Your task to perform on an android device: open app "Firefox Browser" (install if not already installed) Image 0: 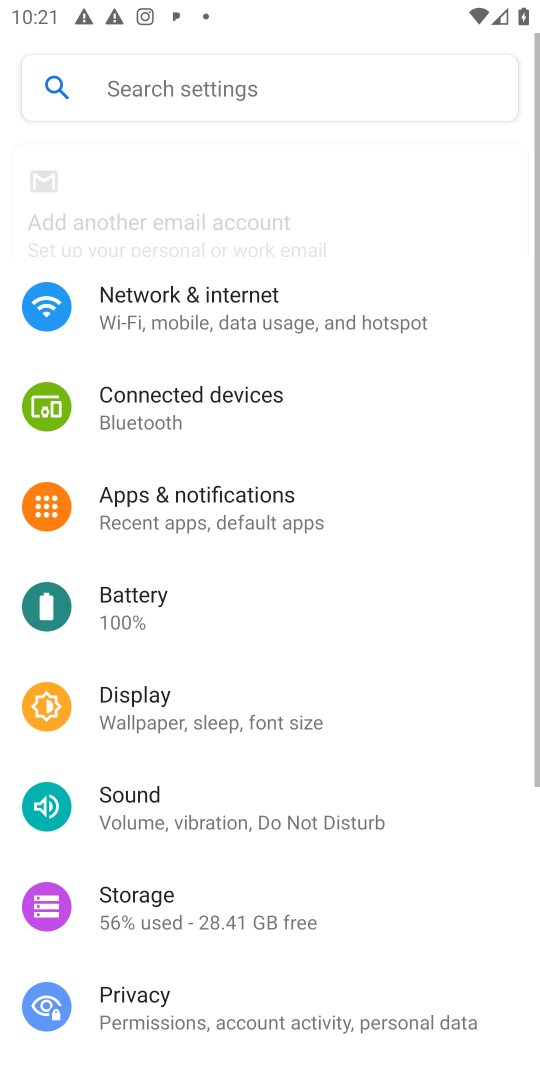
Step 0: press home button
Your task to perform on an android device: open app "Firefox Browser" (install if not already installed) Image 1: 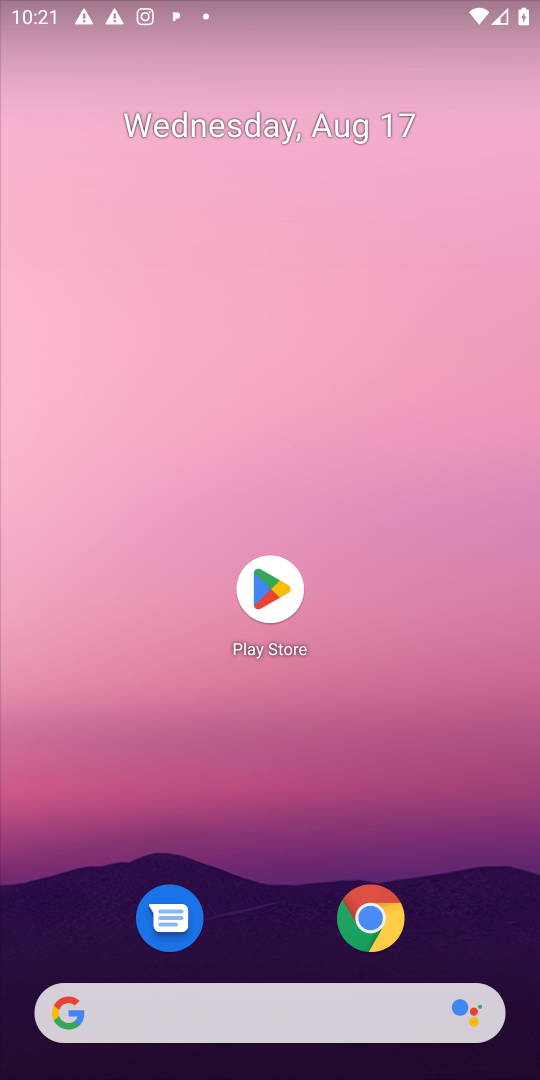
Step 1: click (256, 589)
Your task to perform on an android device: open app "Firefox Browser" (install if not already installed) Image 2: 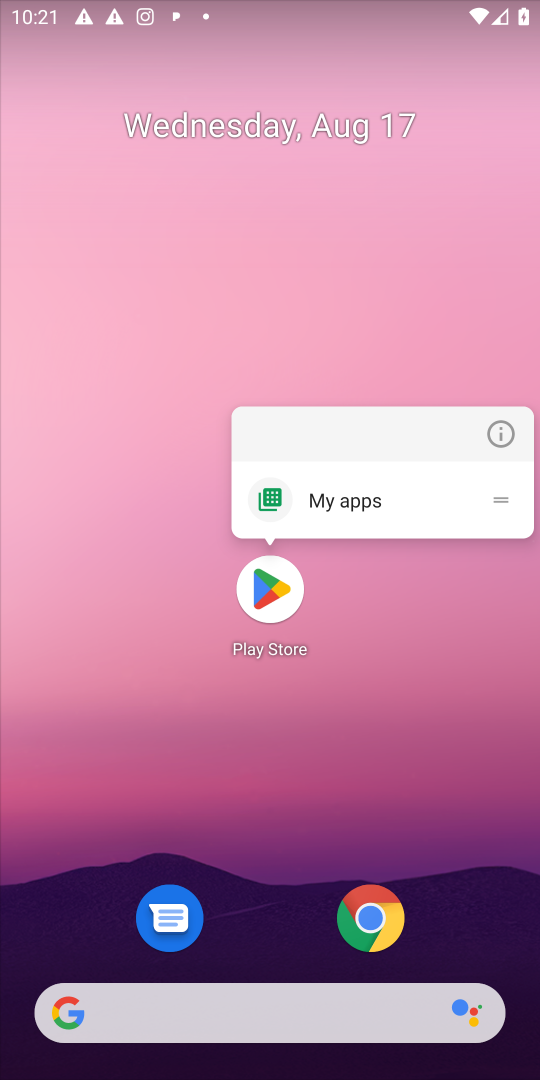
Step 2: click (256, 590)
Your task to perform on an android device: open app "Firefox Browser" (install if not already installed) Image 3: 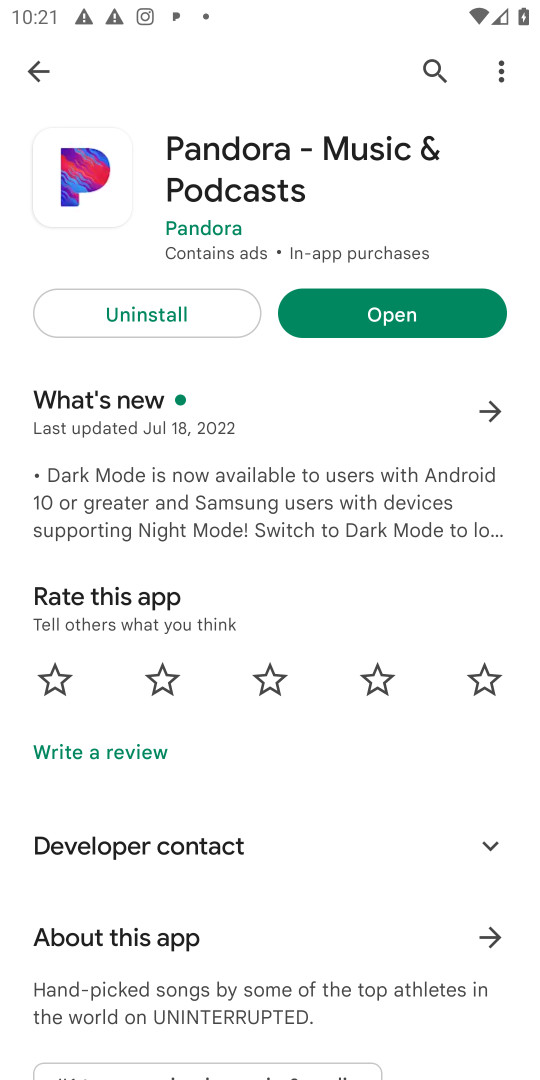
Step 3: click (425, 70)
Your task to perform on an android device: open app "Firefox Browser" (install if not already installed) Image 4: 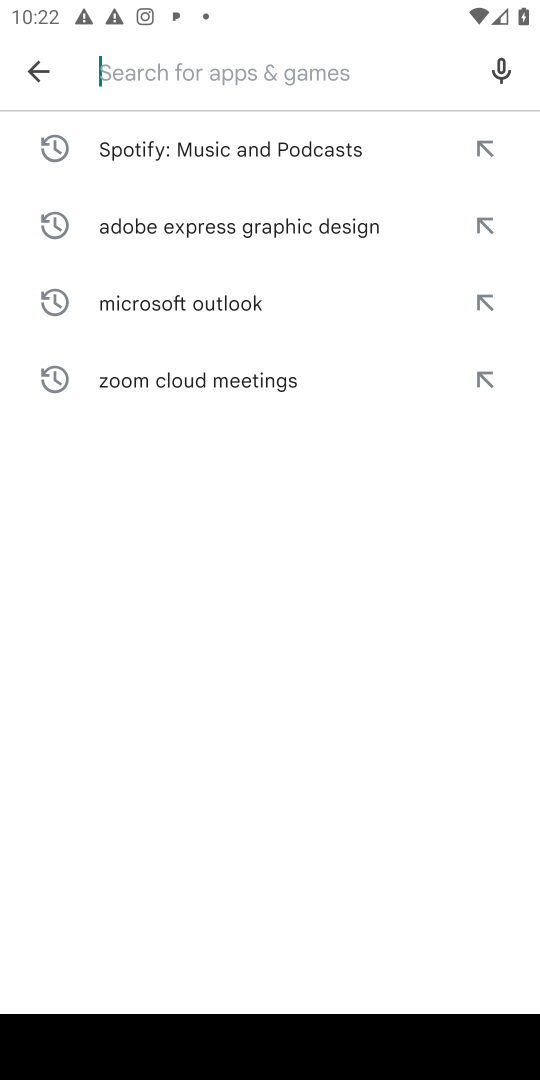
Step 4: type "Firefox Browser"
Your task to perform on an android device: open app "Firefox Browser" (install if not already installed) Image 5: 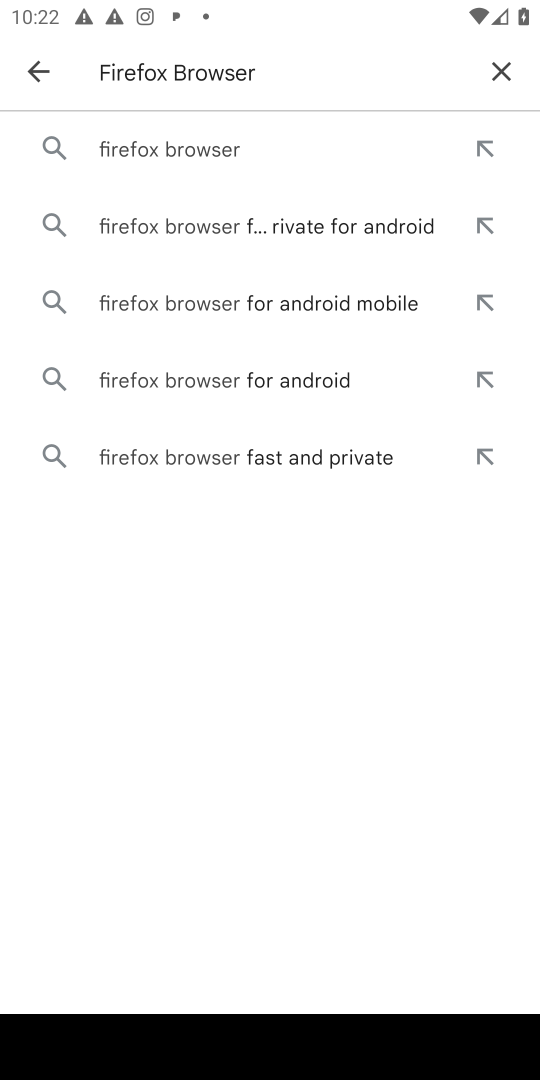
Step 5: click (215, 151)
Your task to perform on an android device: open app "Firefox Browser" (install if not already installed) Image 6: 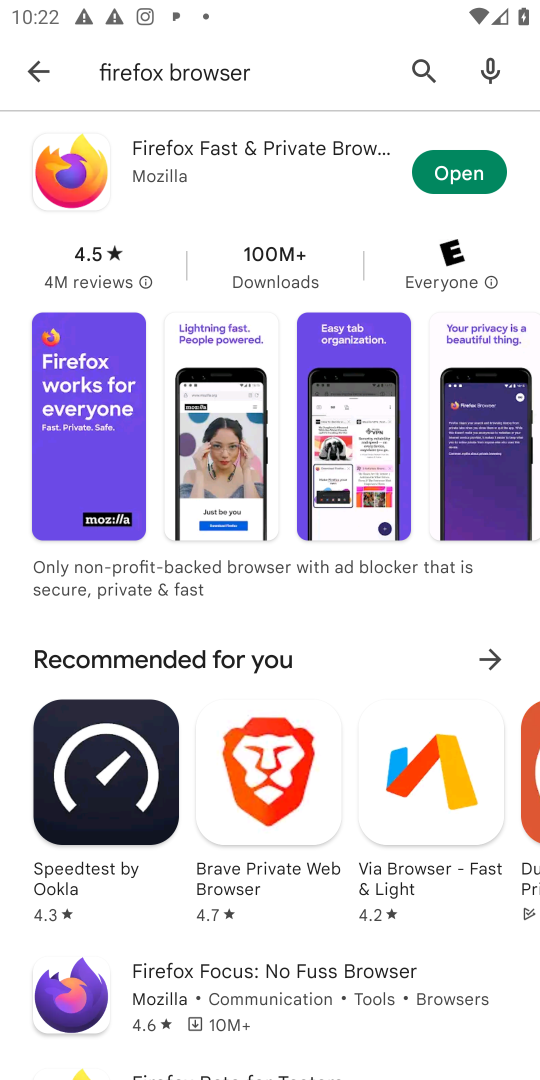
Step 6: click (448, 181)
Your task to perform on an android device: open app "Firefox Browser" (install if not already installed) Image 7: 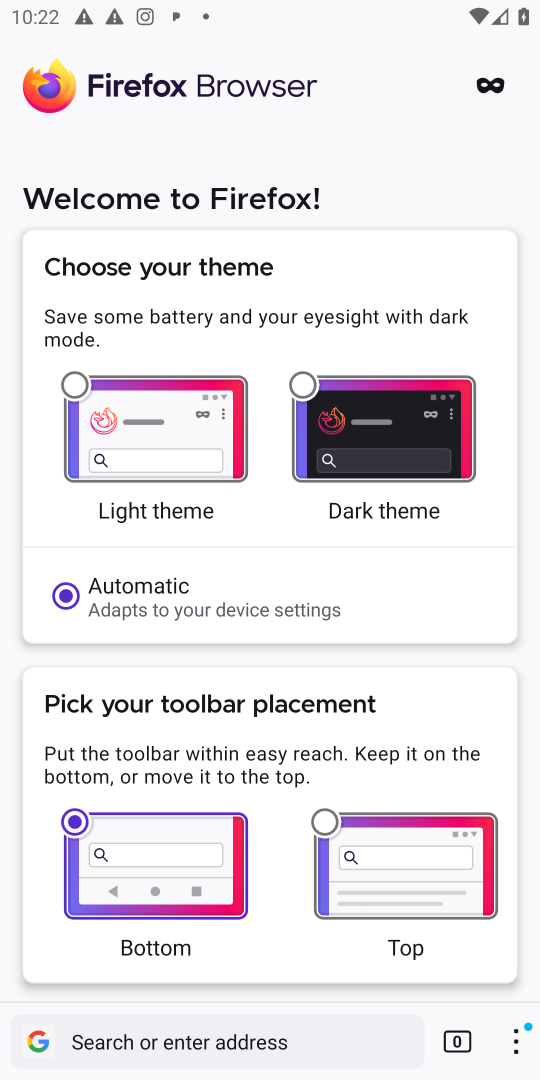
Step 7: task complete